Your task to perform on an android device: read, delete, or share a saved page in the chrome app Image 0: 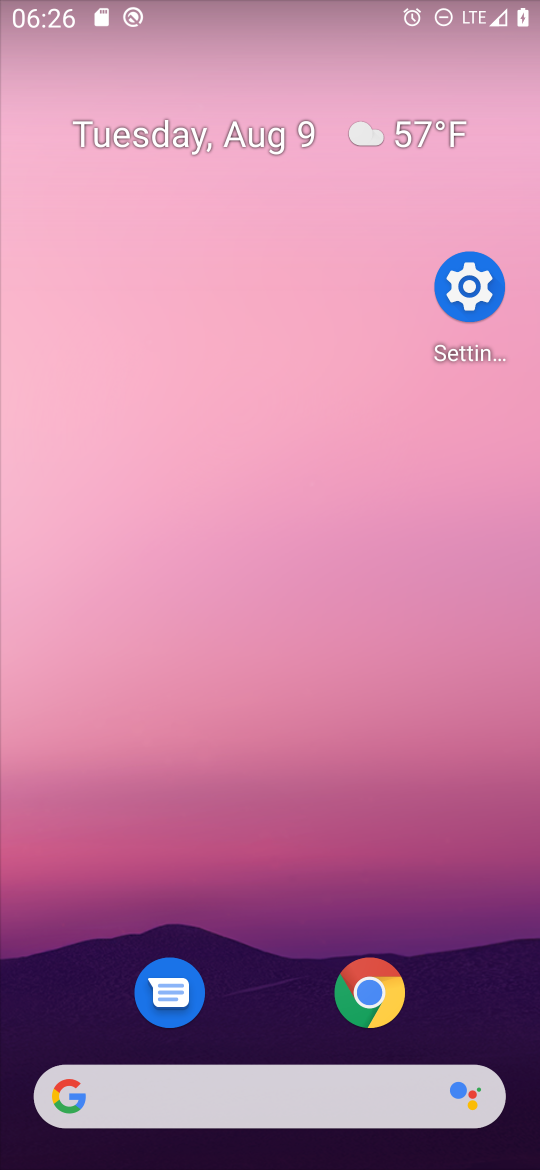
Step 0: drag from (145, 1117) to (2, 543)
Your task to perform on an android device: read, delete, or share a saved page in the chrome app Image 1: 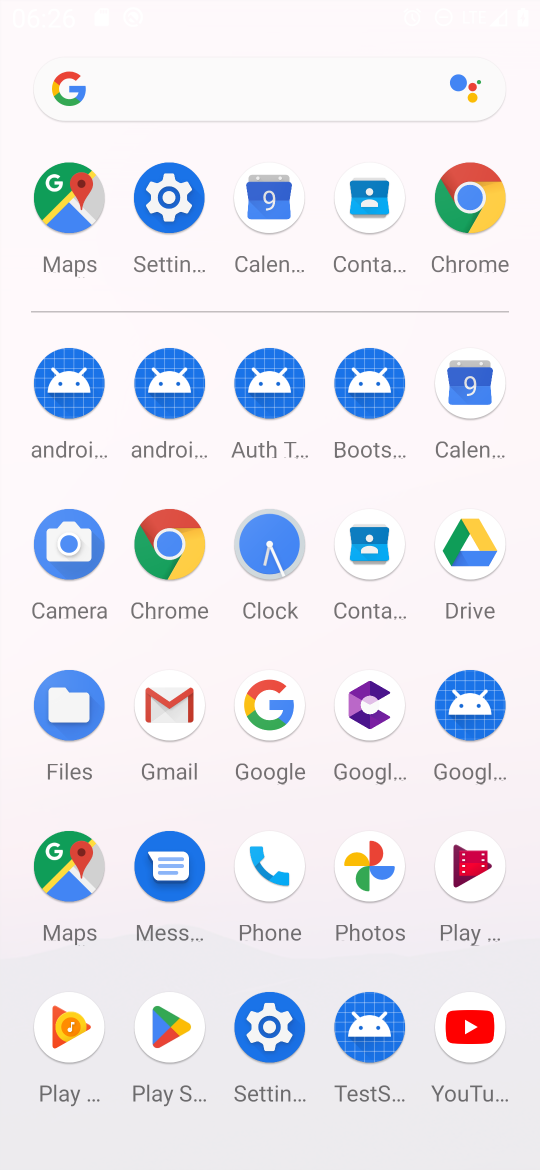
Step 1: click (158, 553)
Your task to perform on an android device: read, delete, or share a saved page in the chrome app Image 2: 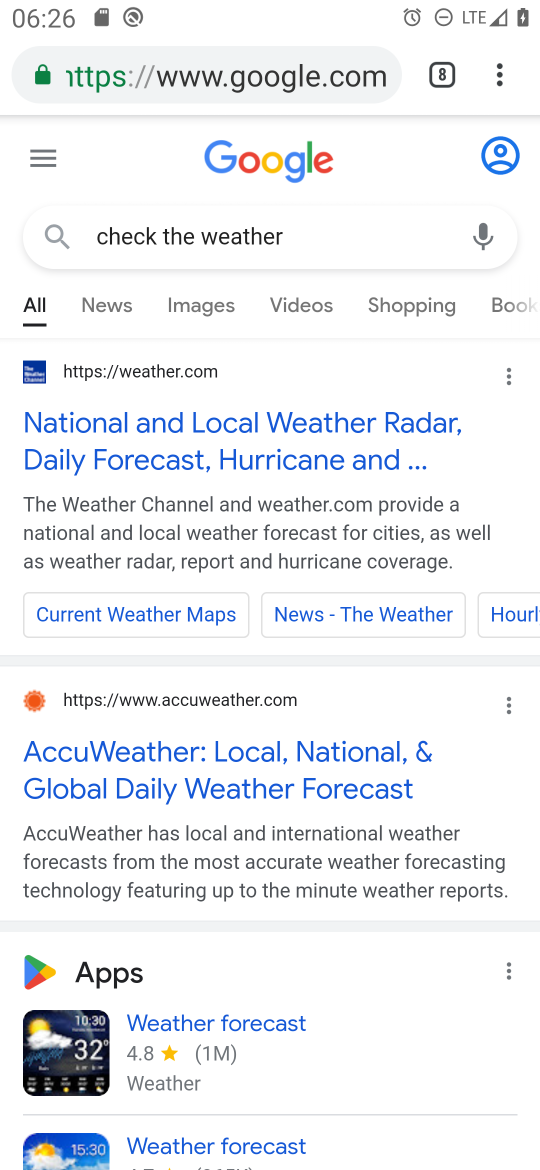
Step 2: click (501, 64)
Your task to perform on an android device: read, delete, or share a saved page in the chrome app Image 3: 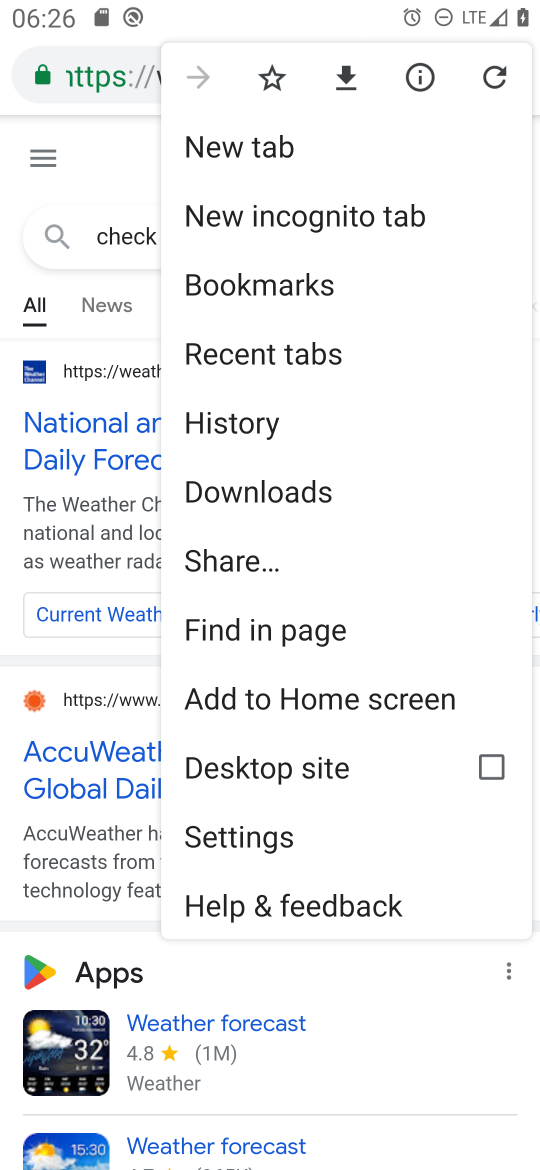
Step 3: click (242, 497)
Your task to perform on an android device: read, delete, or share a saved page in the chrome app Image 4: 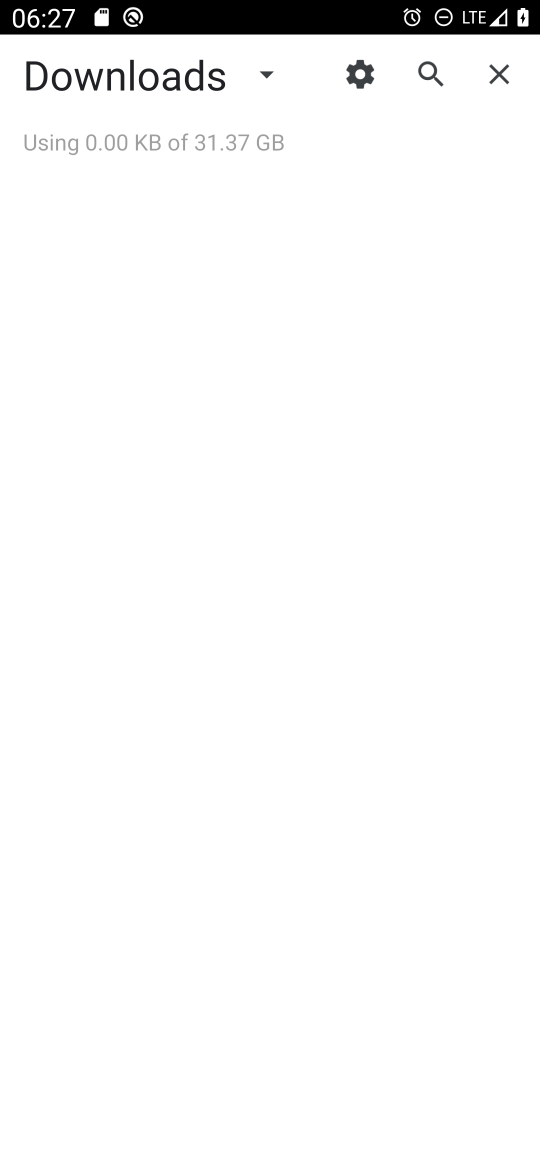
Step 4: task complete